Your task to perform on an android device: Open battery settings Image 0: 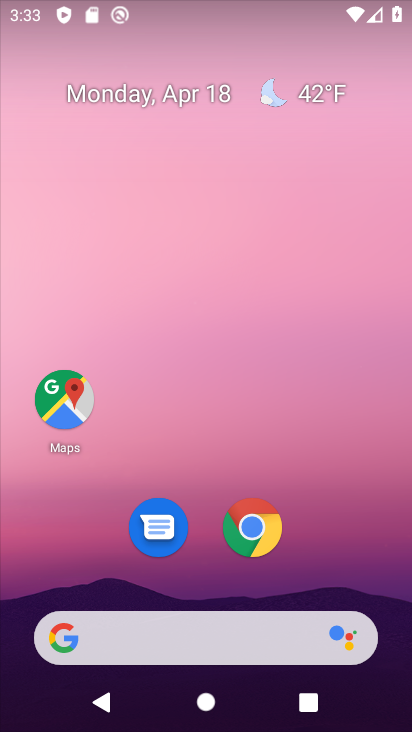
Step 0: drag from (370, 562) to (279, 71)
Your task to perform on an android device: Open battery settings Image 1: 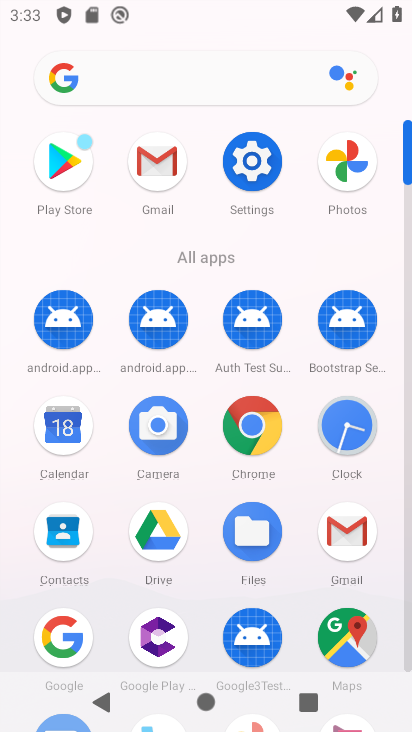
Step 1: click (409, 649)
Your task to perform on an android device: Open battery settings Image 2: 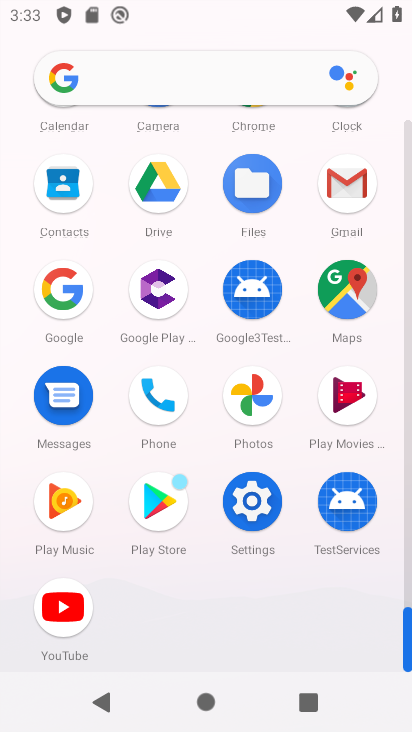
Step 2: click (252, 504)
Your task to perform on an android device: Open battery settings Image 3: 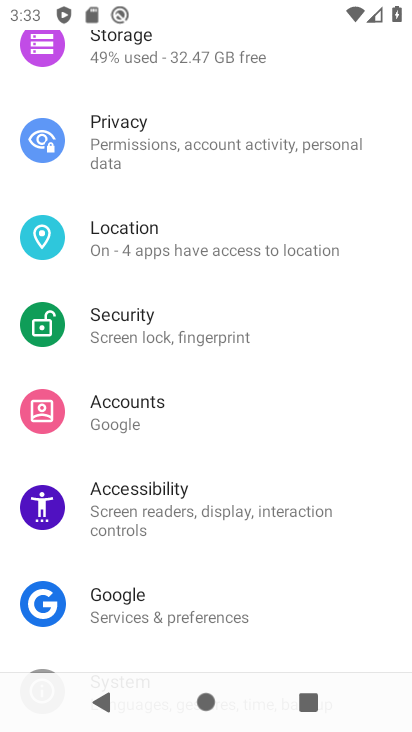
Step 3: drag from (355, 178) to (305, 454)
Your task to perform on an android device: Open battery settings Image 4: 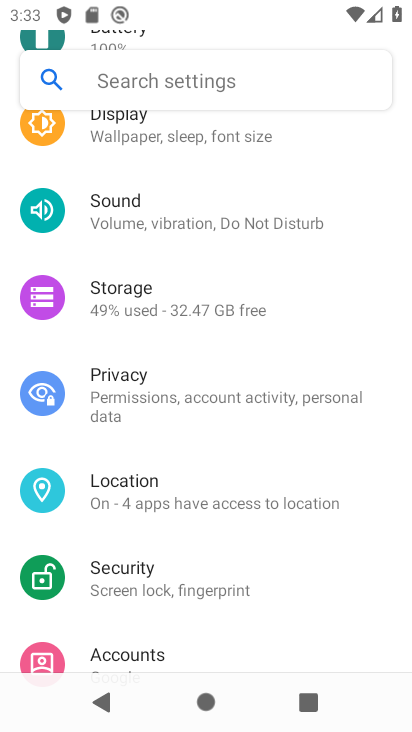
Step 4: drag from (351, 231) to (318, 573)
Your task to perform on an android device: Open battery settings Image 5: 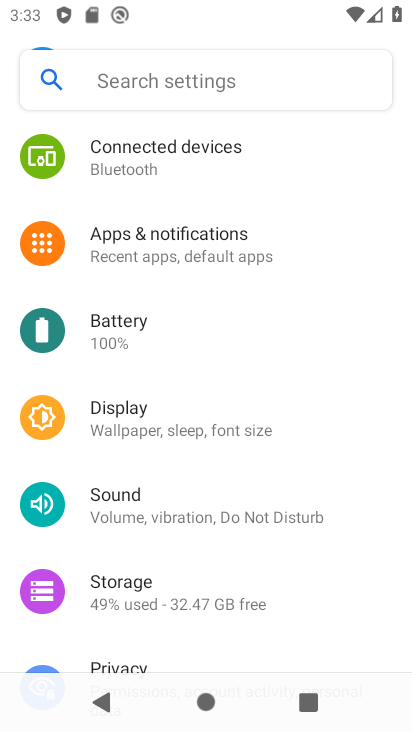
Step 5: click (114, 322)
Your task to perform on an android device: Open battery settings Image 6: 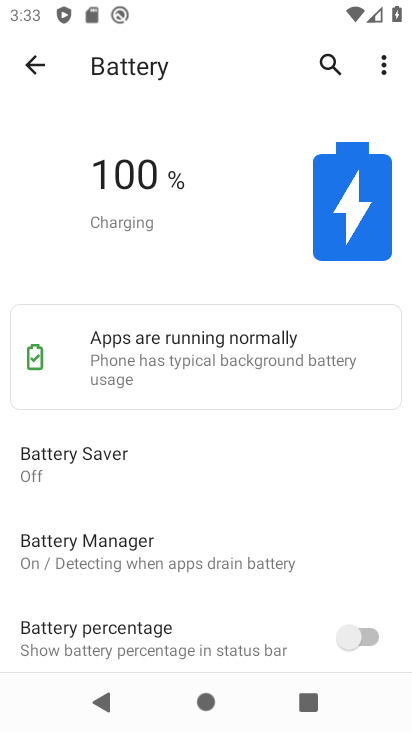
Step 6: task complete